Your task to perform on an android device: Open sound settings Image 0: 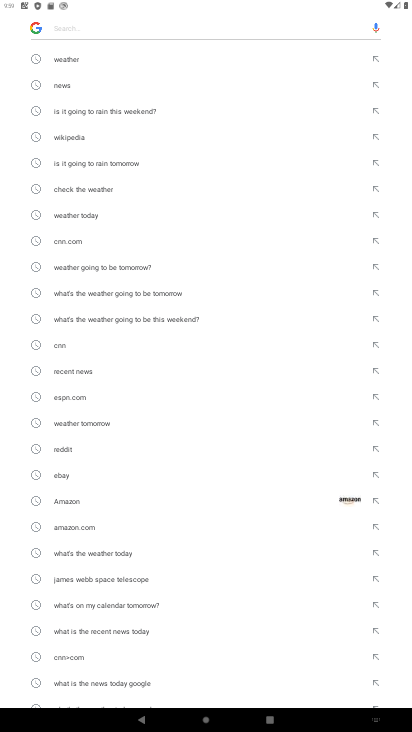
Step 0: task complete